Your task to perform on an android device: Go to Maps Image 0: 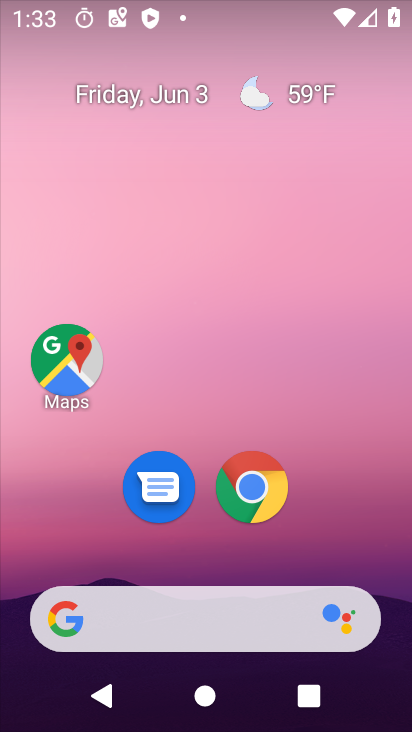
Step 0: click (67, 355)
Your task to perform on an android device: Go to Maps Image 1: 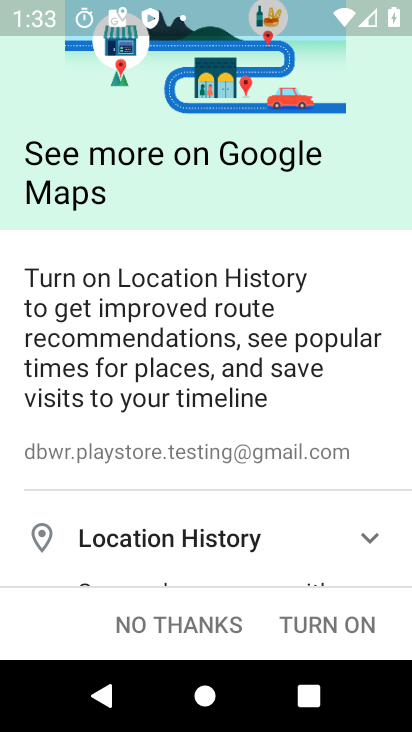
Step 1: drag from (242, 490) to (236, 69)
Your task to perform on an android device: Go to Maps Image 2: 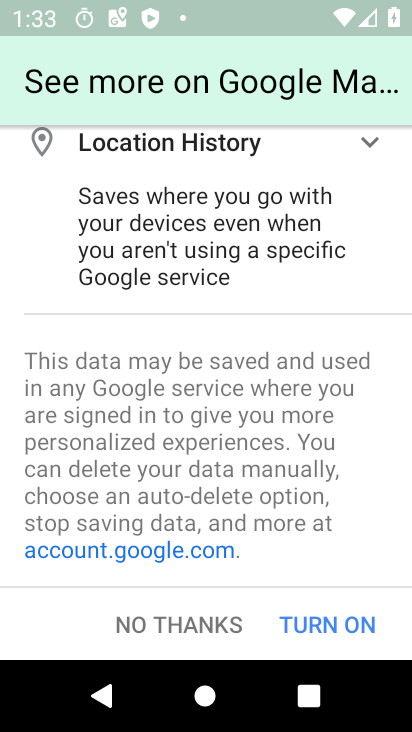
Step 2: drag from (293, 521) to (290, 122)
Your task to perform on an android device: Go to Maps Image 3: 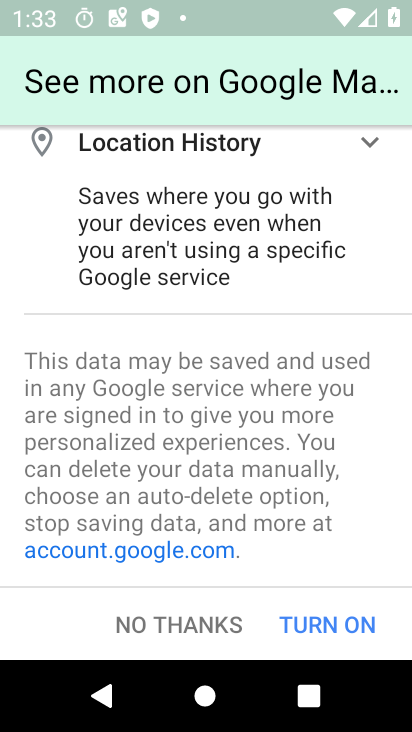
Step 3: click (347, 624)
Your task to perform on an android device: Go to Maps Image 4: 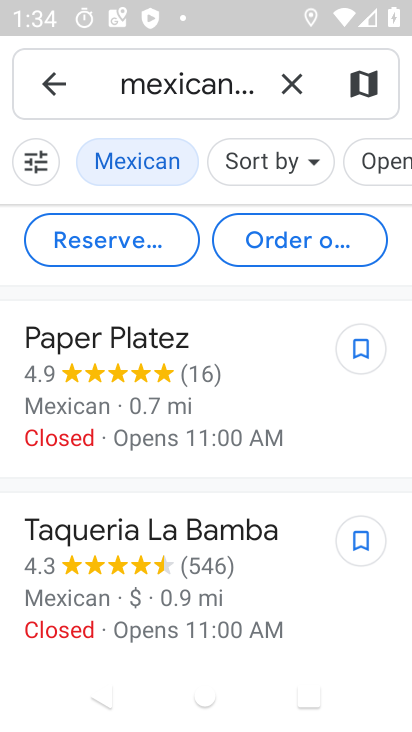
Step 4: click (62, 83)
Your task to perform on an android device: Go to Maps Image 5: 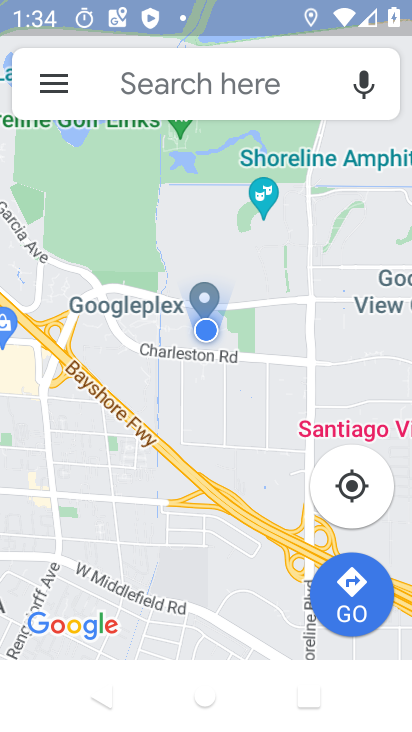
Step 5: task complete